Your task to perform on an android device: snooze an email in the gmail app Image 0: 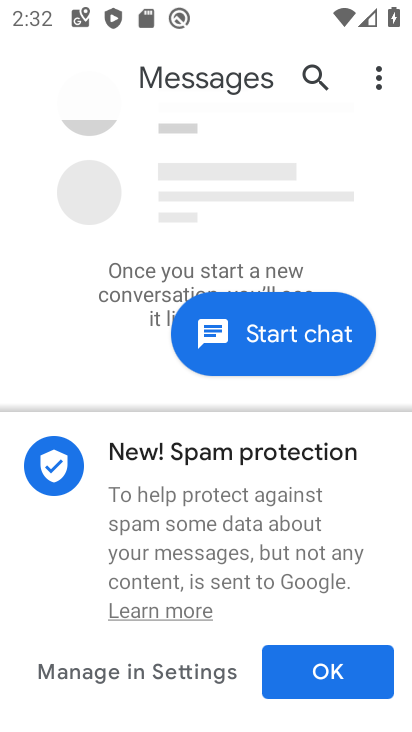
Step 0: press home button
Your task to perform on an android device: snooze an email in the gmail app Image 1: 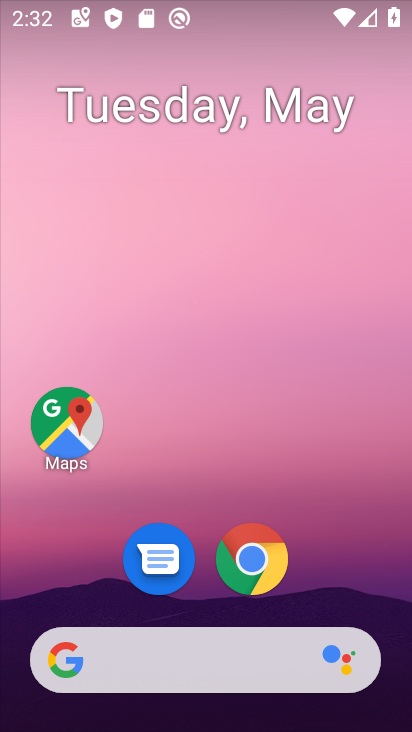
Step 1: drag from (146, 660) to (290, 32)
Your task to perform on an android device: snooze an email in the gmail app Image 2: 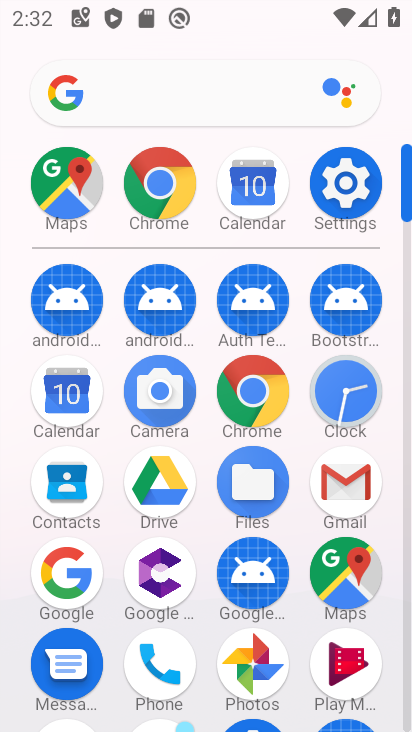
Step 2: click (340, 483)
Your task to perform on an android device: snooze an email in the gmail app Image 3: 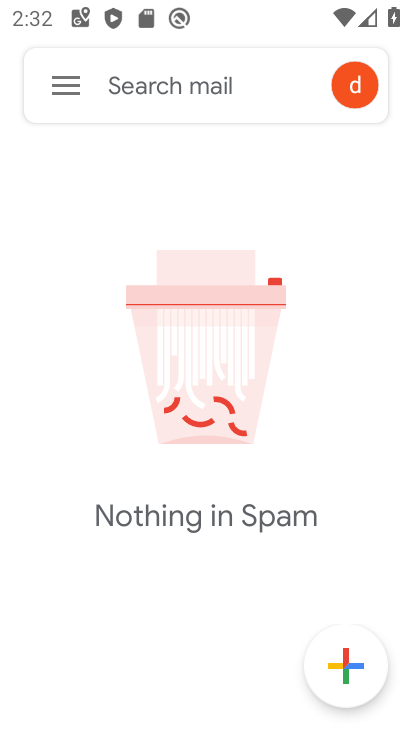
Step 3: click (68, 88)
Your task to perform on an android device: snooze an email in the gmail app Image 4: 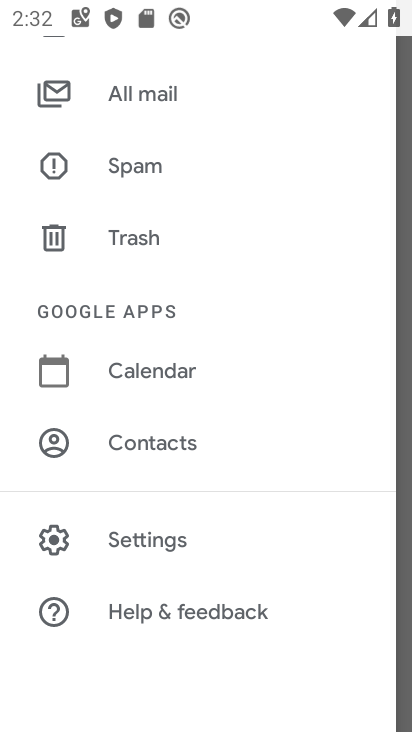
Step 4: click (155, 97)
Your task to perform on an android device: snooze an email in the gmail app Image 5: 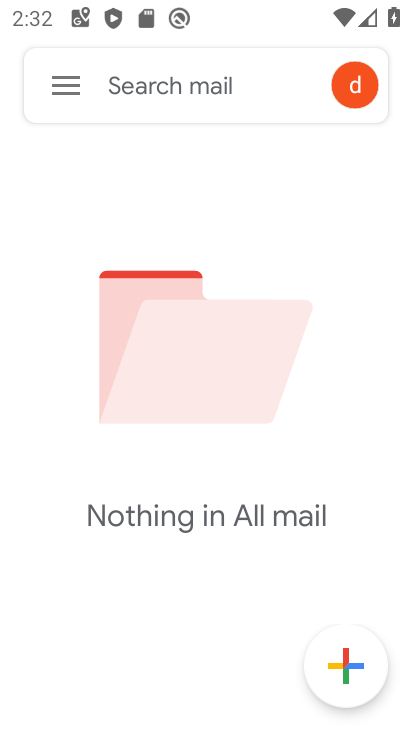
Step 5: task complete